Your task to perform on an android device: Open privacy settings Image 0: 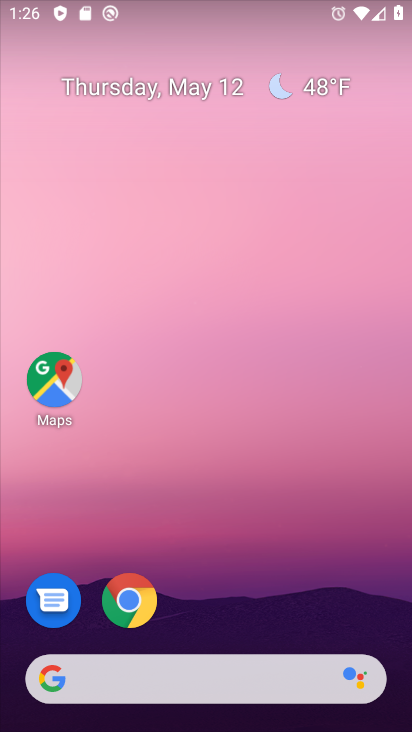
Step 0: click (131, 605)
Your task to perform on an android device: Open privacy settings Image 1: 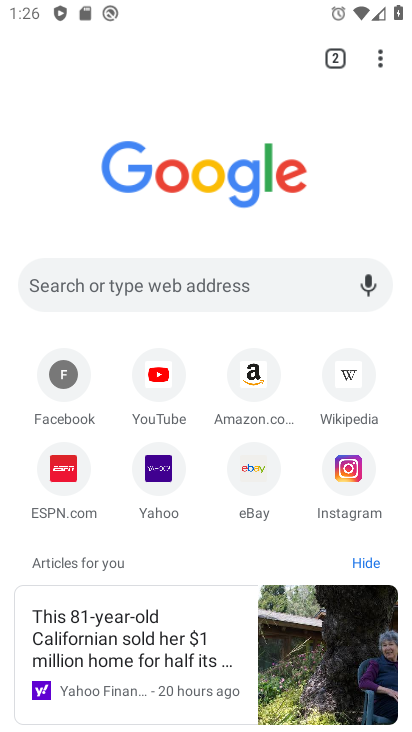
Step 1: click (386, 59)
Your task to perform on an android device: Open privacy settings Image 2: 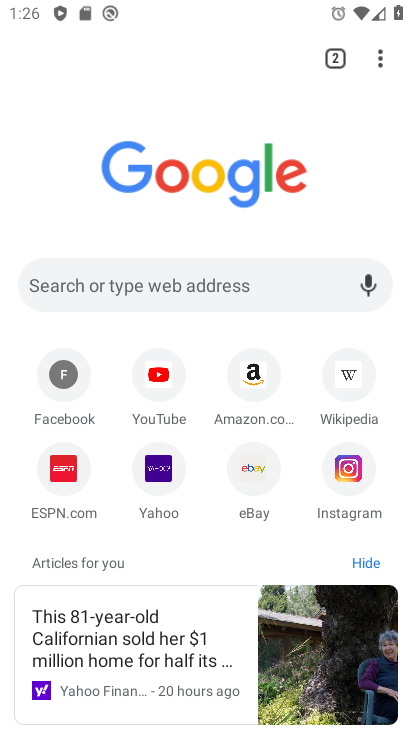
Step 2: drag from (386, 59) to (294, 550)
Your task to perform on an android device: Open privacy settings Image 3: 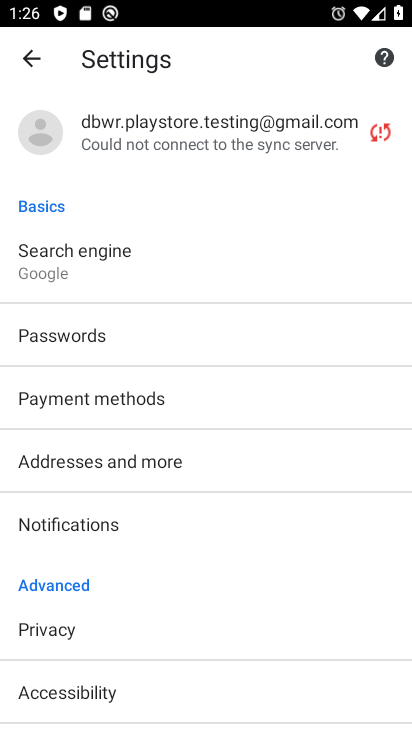
Step 3: click (133, 630)
Your task to perform on an android device: Open privacy settings Image 4: 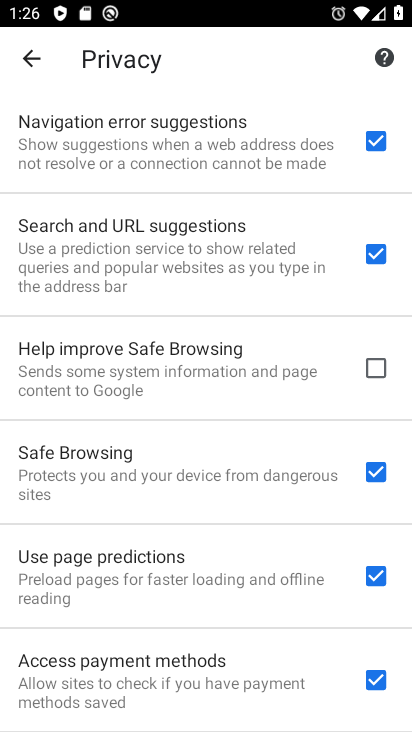
Step 4: task complete